Your task to perform on an android device: check data usage Image 0: 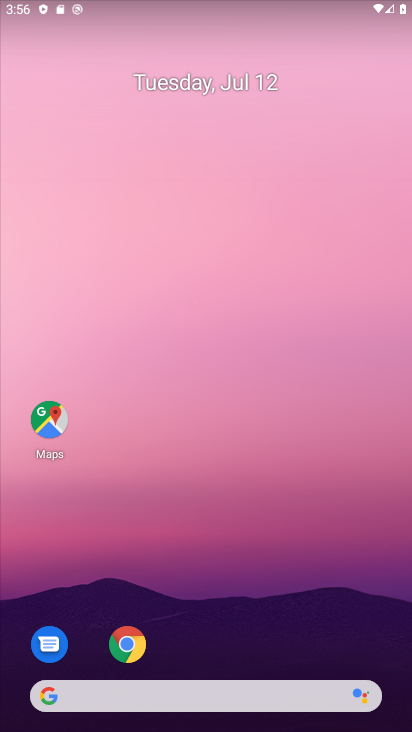
Step 0: drag from (200, 700) to (212, 86)
Your task to perform on an android device: check data usage Image 1: 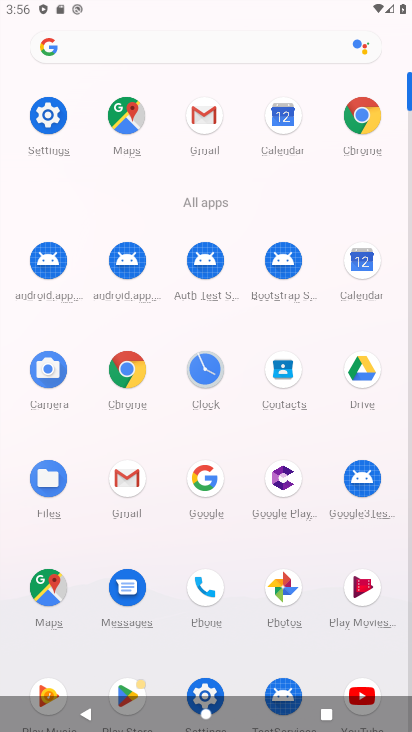
Step 1: click (52, 113)
Your task to perform on an android device: check data usage Image 2: 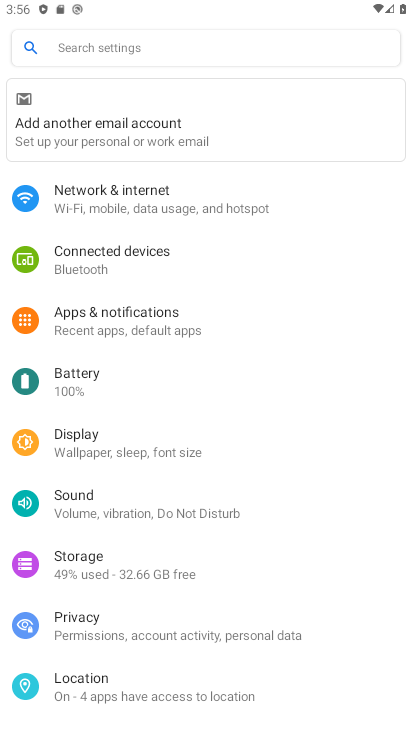
Step 2: click (111, 197)
Your task to perform on an android device: check data usage Image 3: 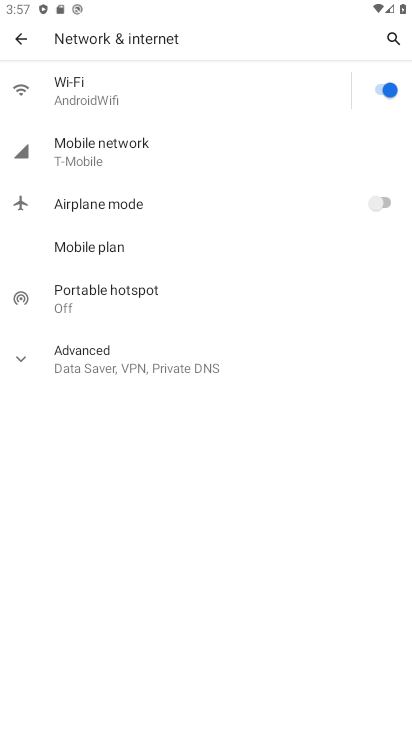
Step 3: click (101, 156)
Your task to perform on an android device: check data usage Image 4: 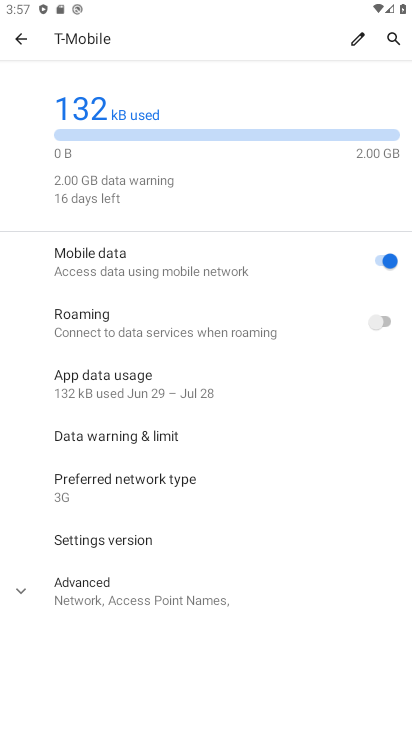
Step 4: task complete